Your task to perform on an android device: Open sound settings Image 0: 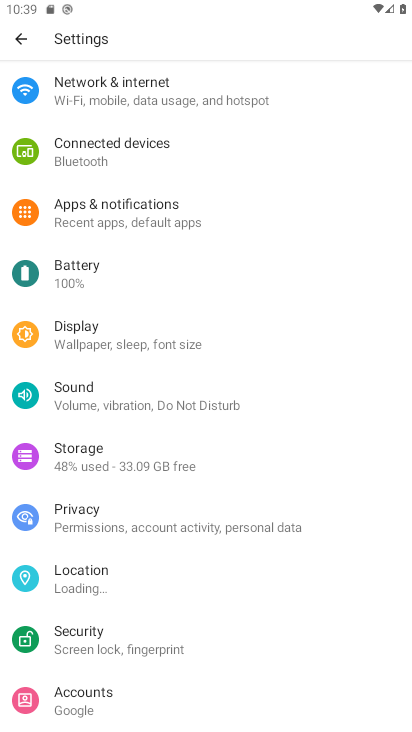
Step 0: click (78, 399)
Your task to perform on an android device: Open sound settings Image 1: 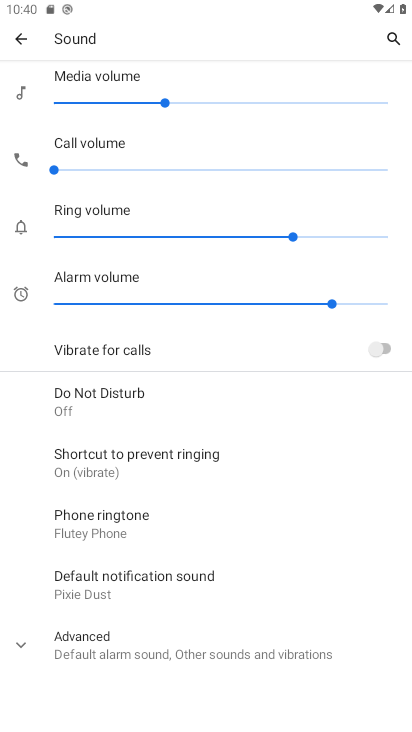
Step 1: drag from (129, 623) to (123, 153)
Your task to perform on an android device: Open sound settings Image 2: 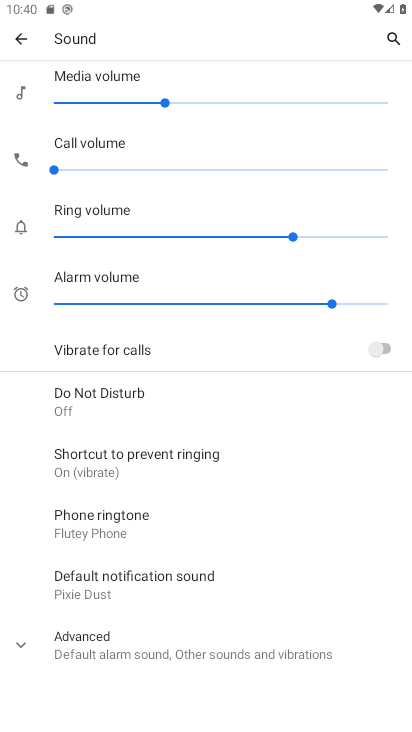
Step 2: click (83, 647)
Your task to perform on an android device: Open sound settings Image 3: 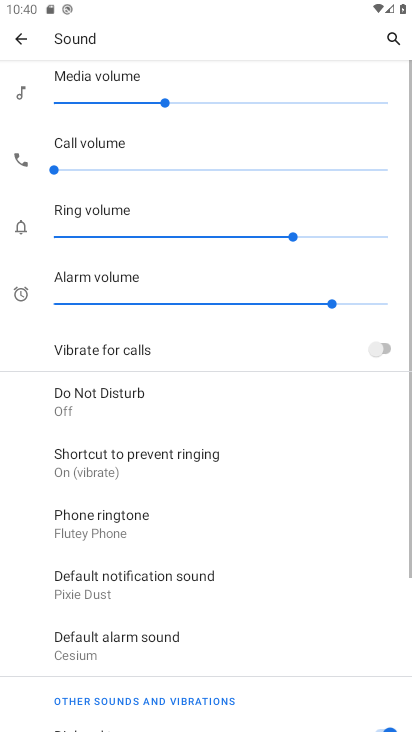
Step 3: task complete